Your task to perform on an android device: Go to ESPN.com Image 0: 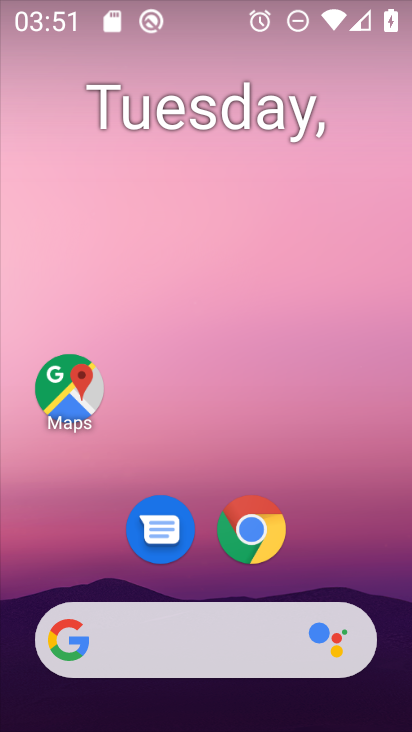
Step 0: click (234, 529)
Your task to perform on an android device: Go to ESPN.com Image 1: 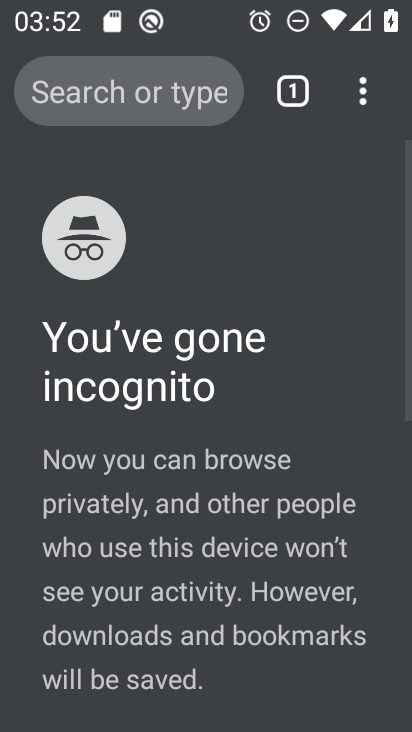
Step 1: click (372, 85)
Your task to perform on an android device: Go to ESPN.com Image 2: 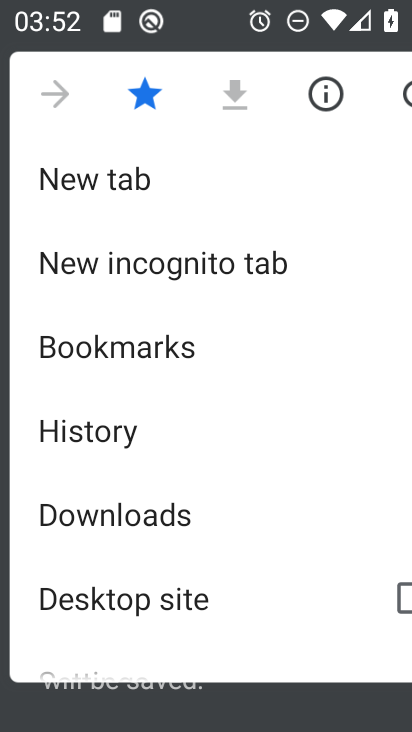
Step 2: click (128, 169)
Your task to perform on an android device: Go to ESPN.com Image 3: 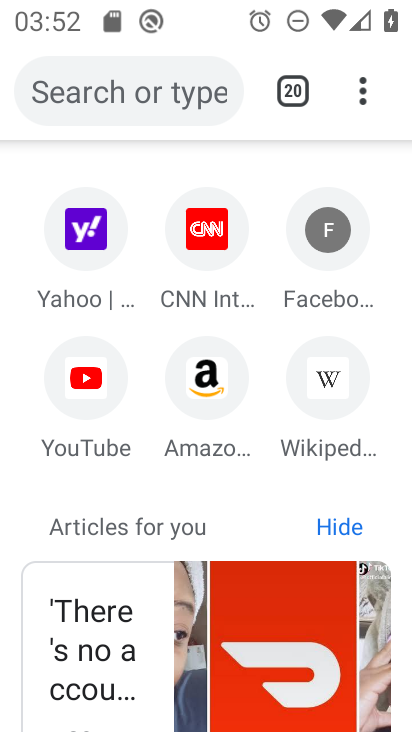
Step 3: click (158, 98)
Your task to perform on an android device: Go to ESPN.com Image 4: 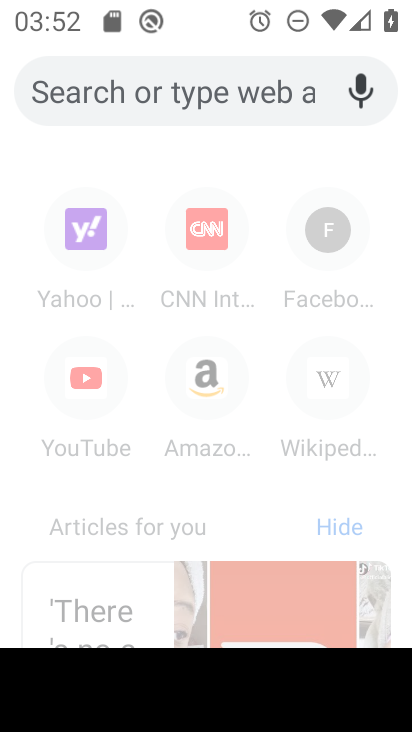
Step 4: type " ESPN.com"
Your task to perform on an android device: Go to ESPN.com Image 5: 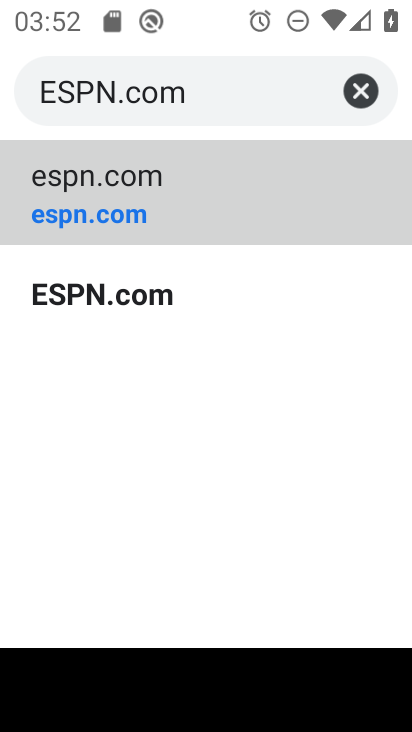
Step 5: click (273, 160)
Your task to perform on an android device: Go to ESPN.com Image 6: 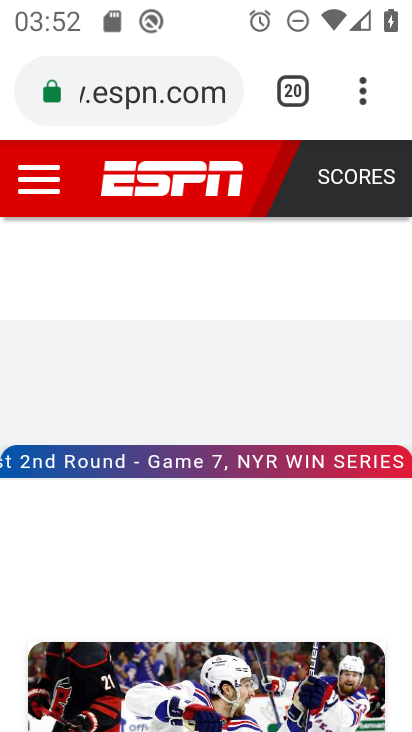
Step 6: task complete